Your task to perform on an android device: manage bookmarks in the chrome app Image 0: 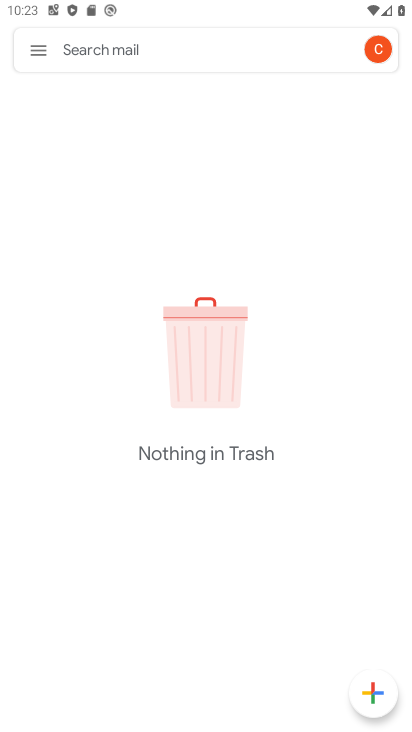
Step 0: press home button
Your task to perform on an android device: manage bookmarks in the chrome app Image 1: 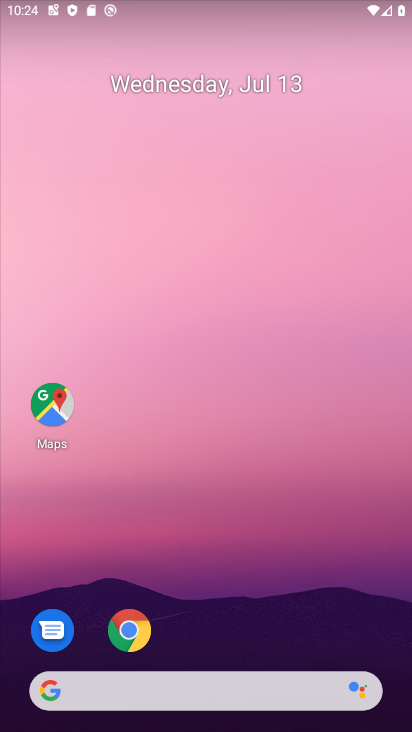
Step 1: drag from (309, 534) to (209, 53)
Your task to perform on an android device: manage bookmarks in the chrome app Image 2: 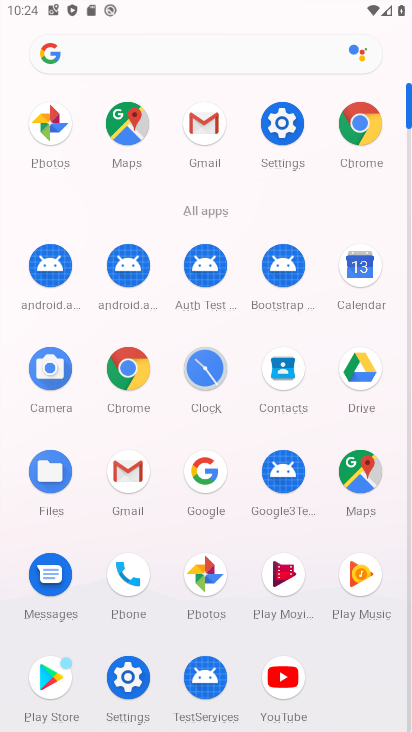
Step 2: click (345, 117)
Your task to perform on an android device: manage bookmarks in the chrome app Image 3: 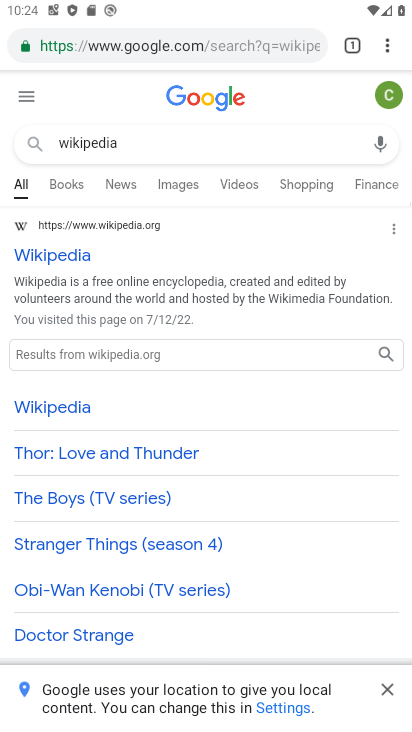
Step 3: drag from (387, 37) to (242, 172)
Your task to perform on an android device: manage bookmarks in the chrome app Image 4: 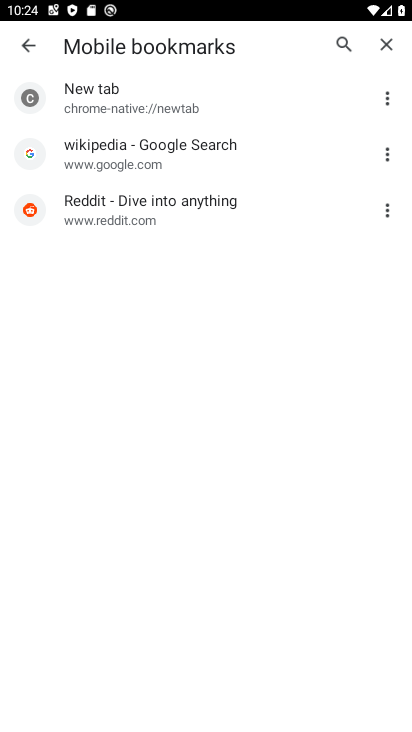
Step 4: click (382, 98)
Your task to perform on an android device: manage bookmarks in the chrome app Image 5: 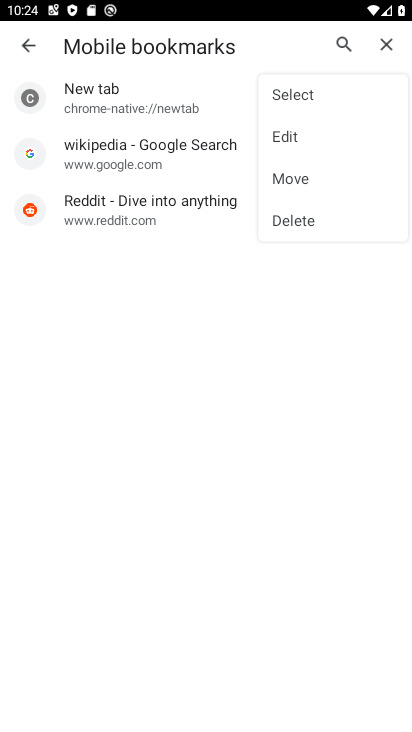
Step 5: click (292, 219)
Your task to perform on an android device: manage bookmarks in the chrome app Image 6: 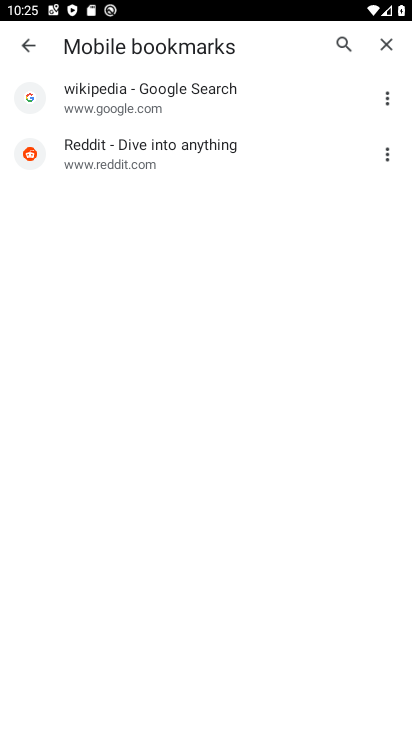
Step 6: task complete